Your task to perform on an android device: Open the calendar app, open the side menu, and click the "Day" option Image 0: 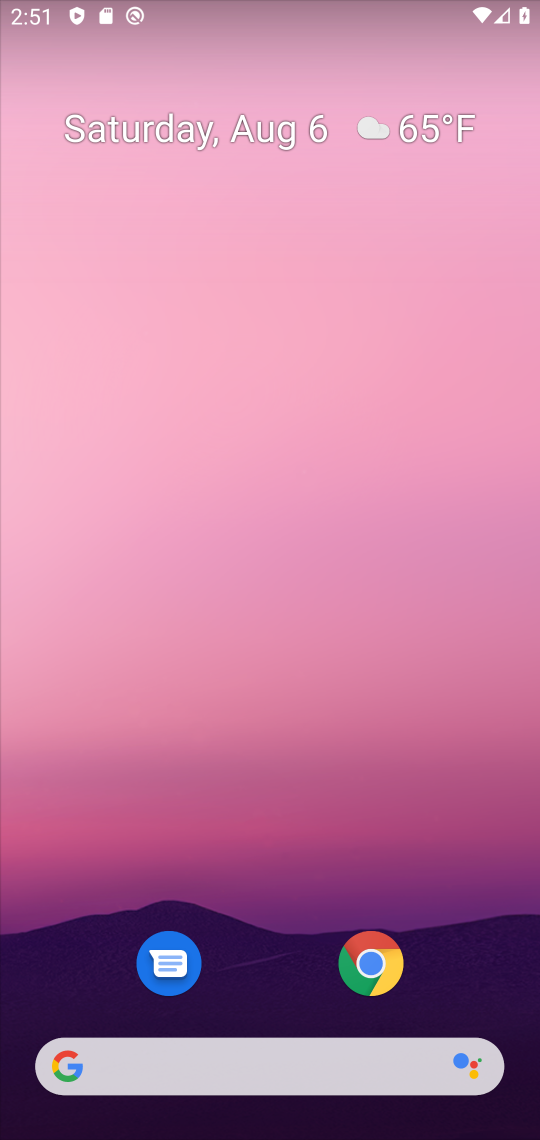
Step 0: drag from (473, 928) to (270, 7)
Your task to perform on an android device: Open the calendar app, open the side menu, and click the "Day" option Image 1: 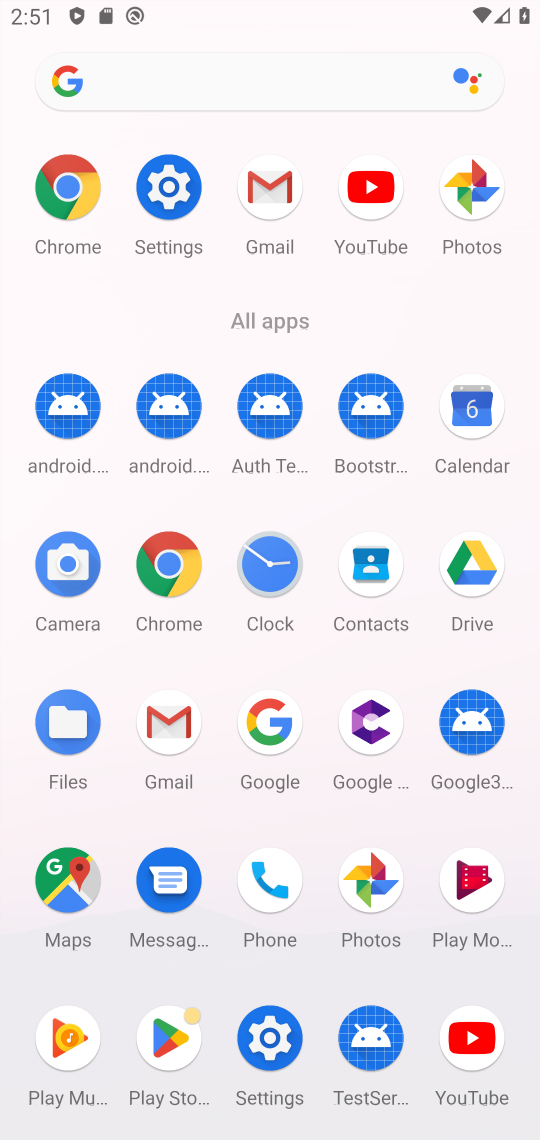
Step 1: click (470, 421)
Your task to perform on an android device: Open the calendar app, open the side menu, and click the "Day" option Image 2: 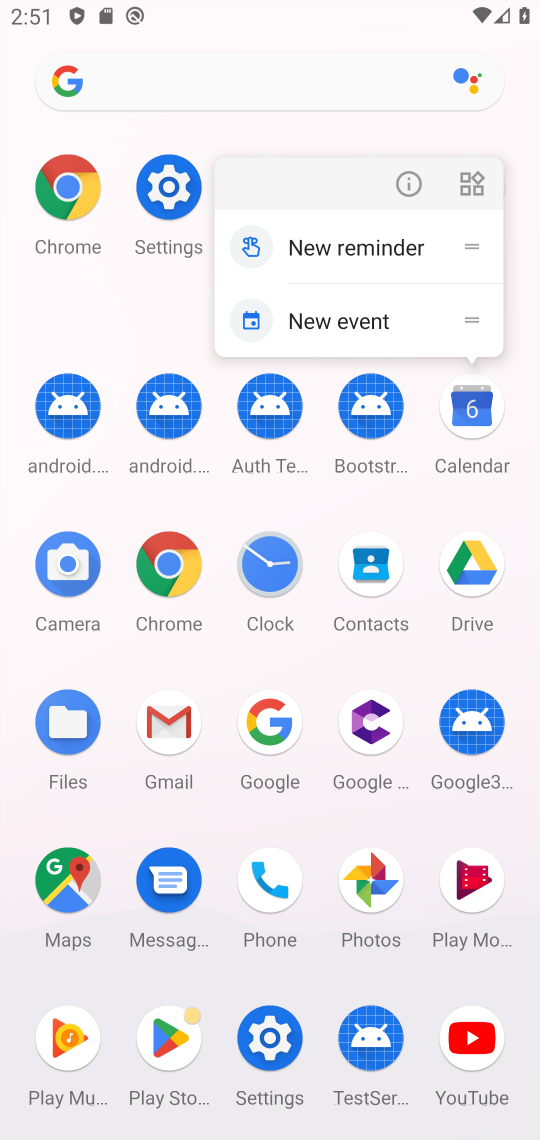
Step 2: click (476, 411)
Your task to perform on an android device: Open the calendar app, open the side menu, and click the "Day" option Image 3: 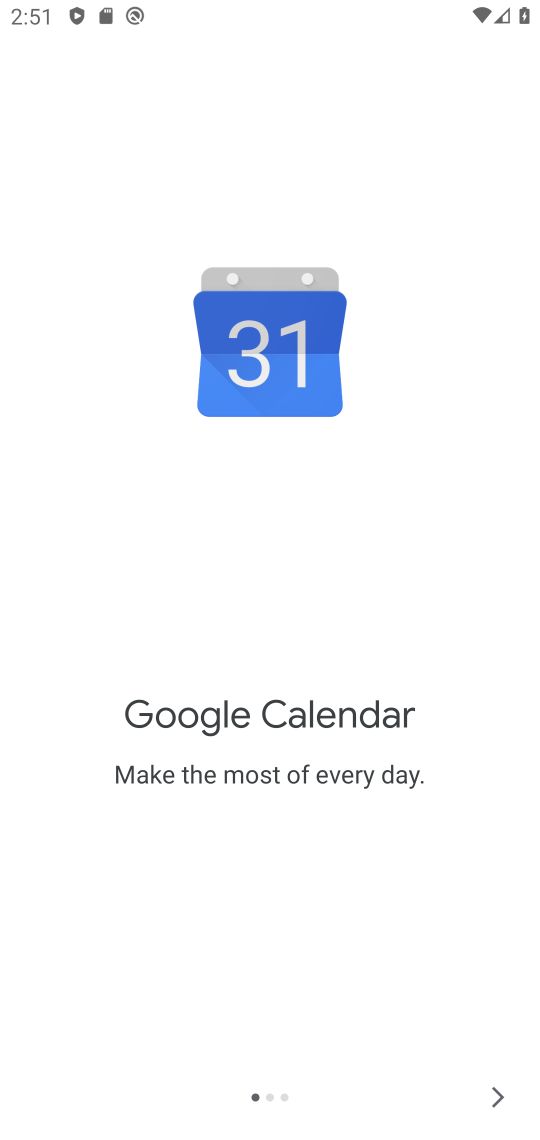
Step 3: click (504, 1097)
Your task to perform on an android device: Open the calendar app, open the side menu, and click the "Day" option Image 4: 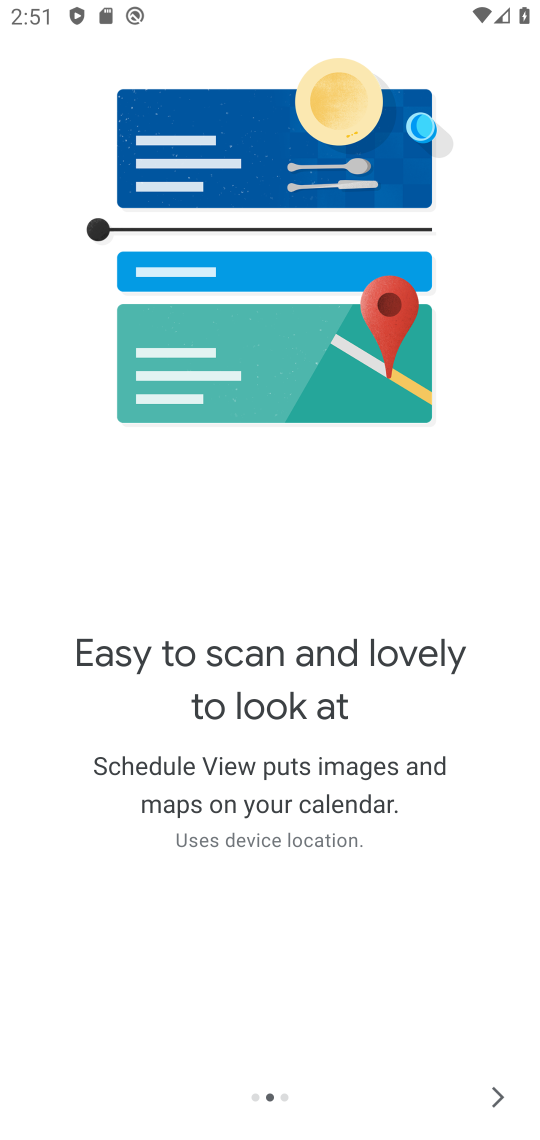
Step 4: click (504, 1097)
Your task to perform on an android device: Open the calendar app, open the side menu, and click the "Day" option Image 5: 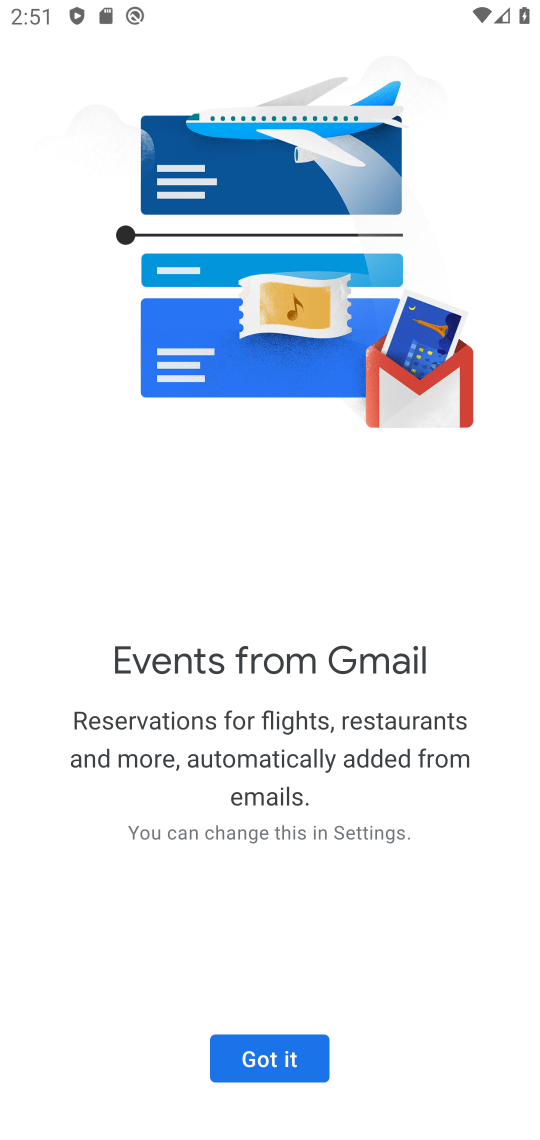
Step 5: click (288, 1059)
Your task to perform on an android device: Open the calendar app, open the side menu, and click the "Day" option Image 6: 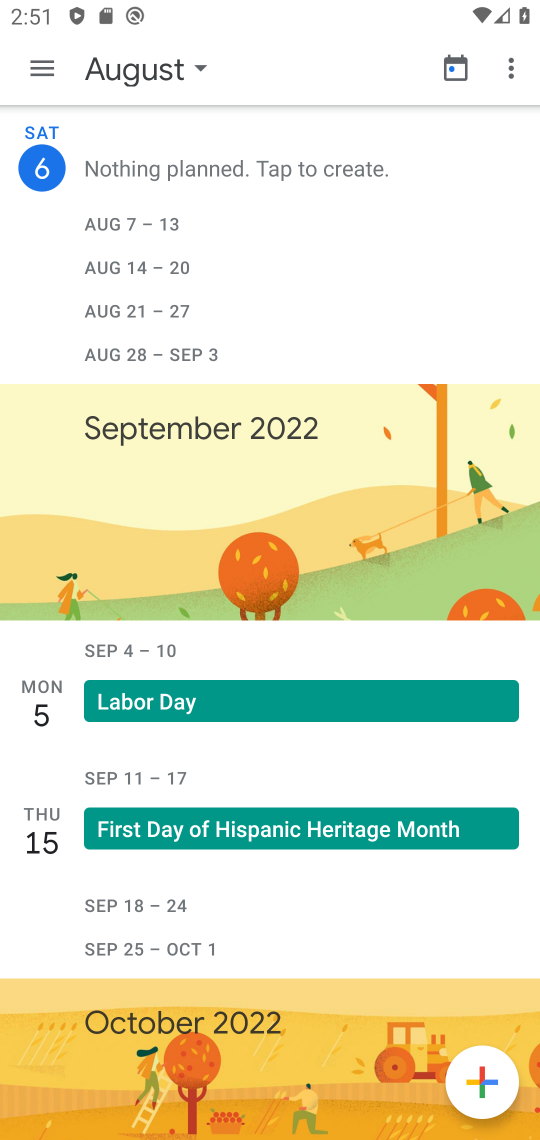
Step 6: click (35, 68)
Your task to perform on an android device: Open the calendar app, open the side menu, and click the "Day" option Image 7: 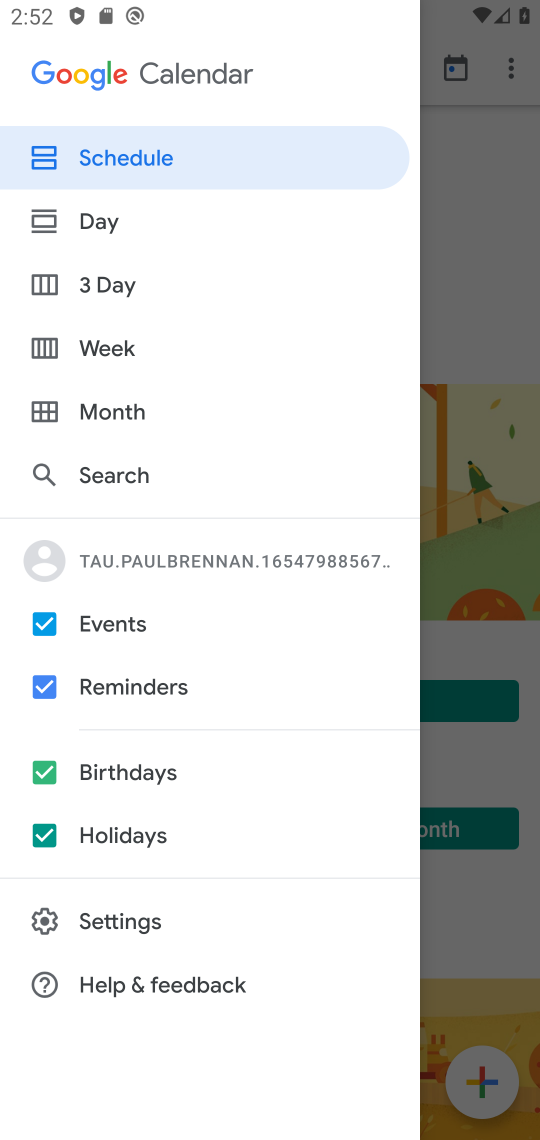
Step 7: click (147, 223)
Your task to perform on an android device: Open the calendar app, open the side menu, and click the "Day" option Image 8: 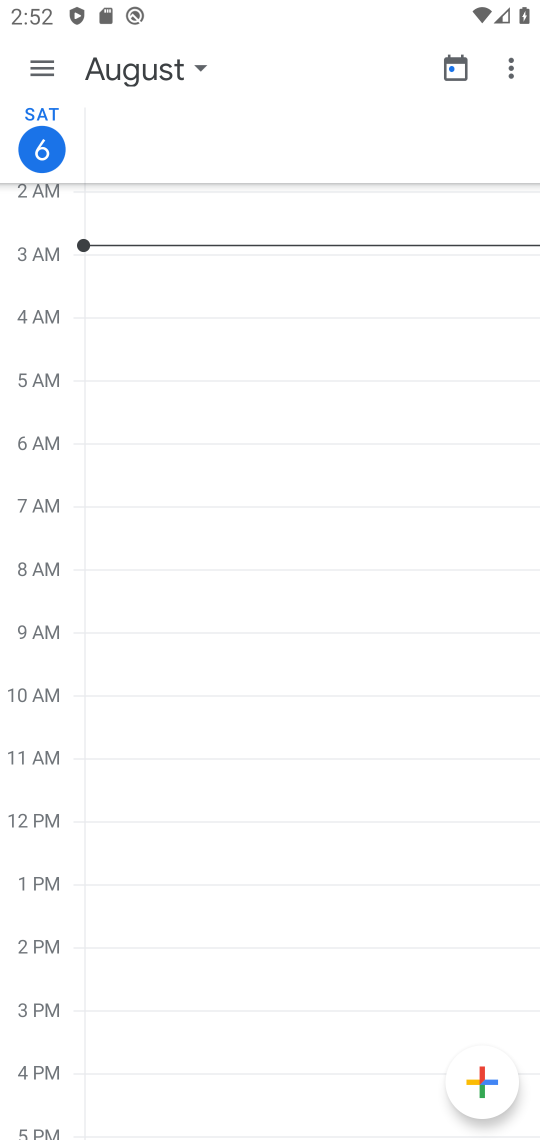
Step 8: task complete